Your task to perform on an android device: Show me recent news Image 0: 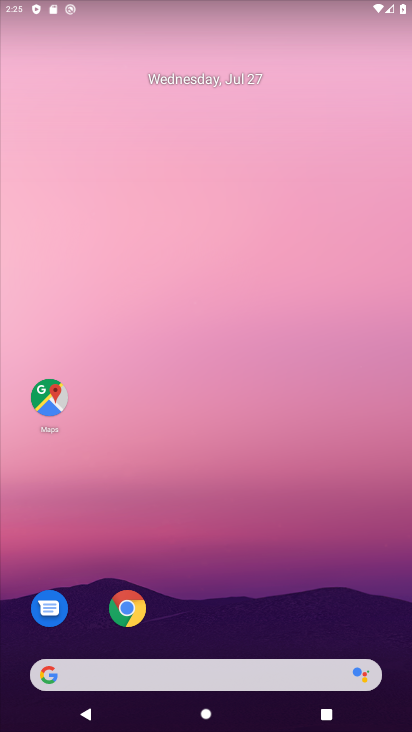
Step 0: click (210, 675)
Your task to perform on an android device: Show me recent news Image 1: 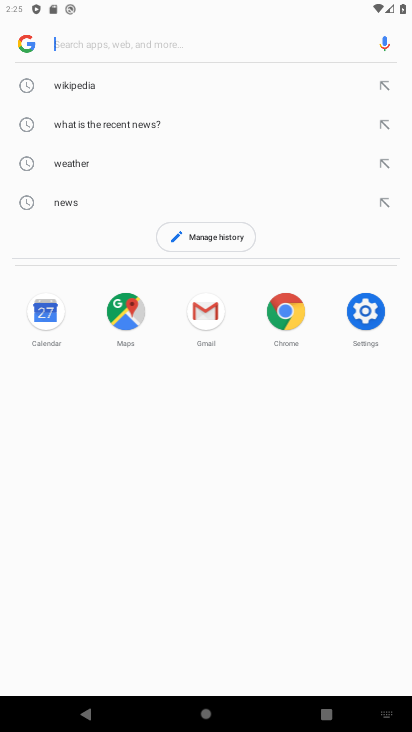
Step 1: type "how me recent news"
Your task to perform on an android device: Show me recent news Image 2: 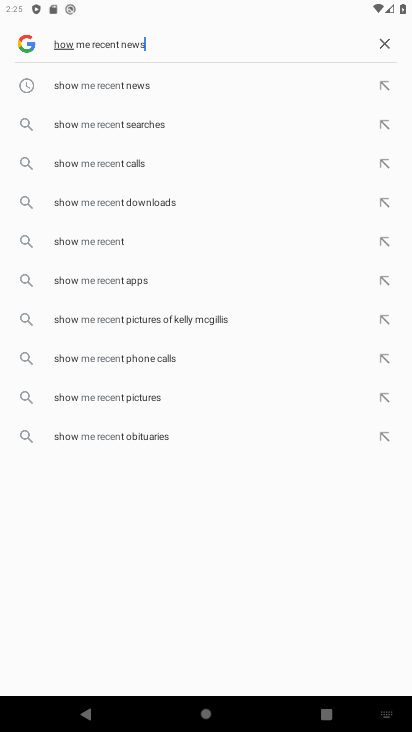
Step 2: press enter
Your task to perform on an android device: Show me recent news Image 3: 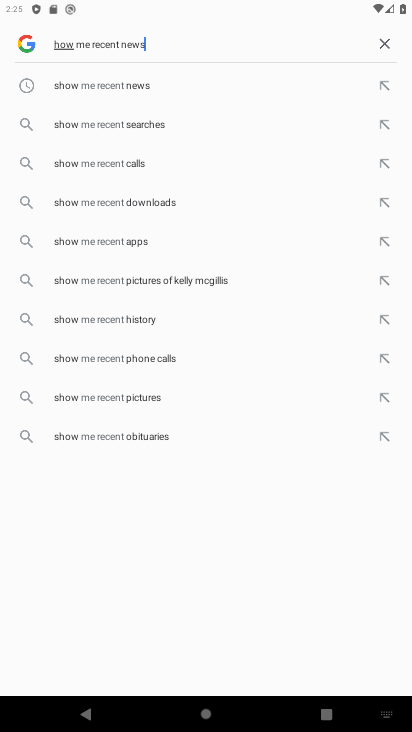
Step 3: type ""
Your task to perform on an android device: Show me recent news Image 4: 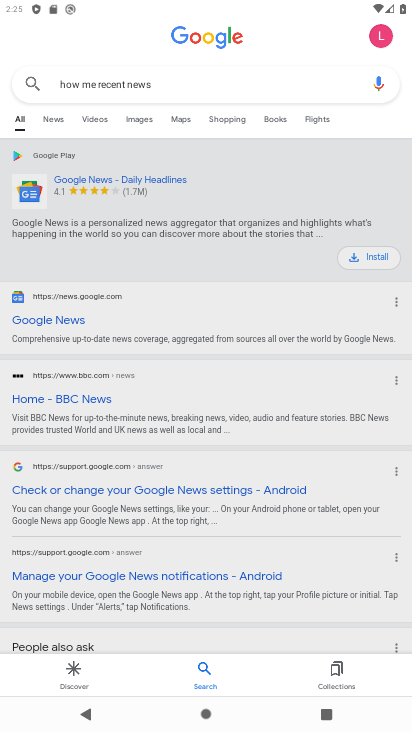
Step 4: task complete